Your task to perform on an android device: Open network settings Image 0: 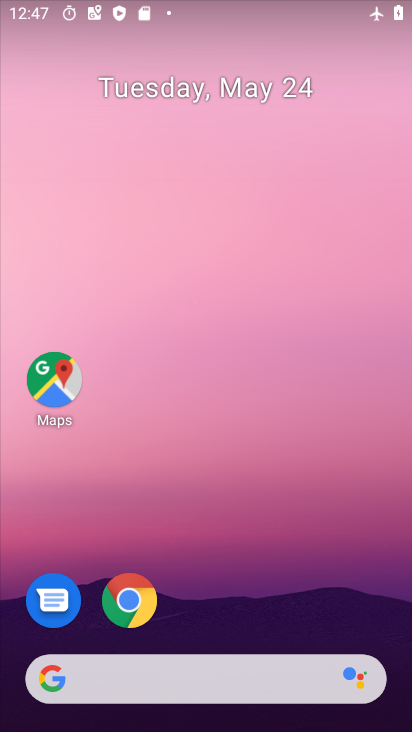
Step 0: drag from (278, 563) to (293, 203)
Your task to perform on an android device: Open network settings Image 1: 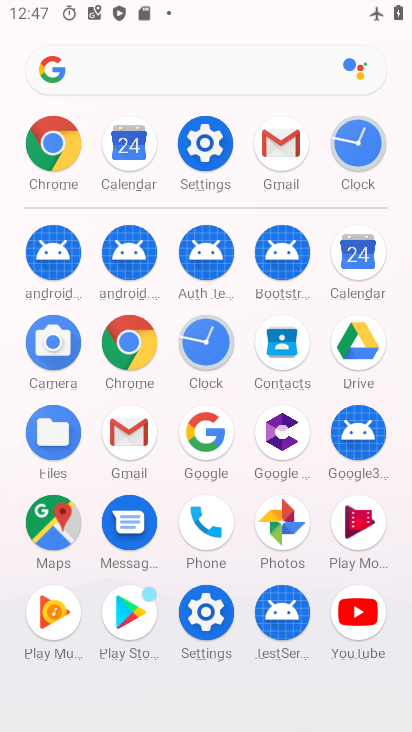
Step 1: click (214, 150)
Your task to perform on an android device: Open network settings Image 2: 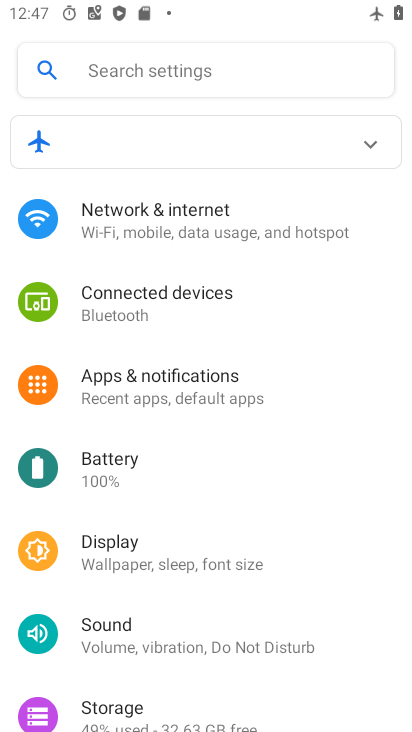
Step 2: click (189, 225)
Your task to perform on an android device: Open network settings Image 3: 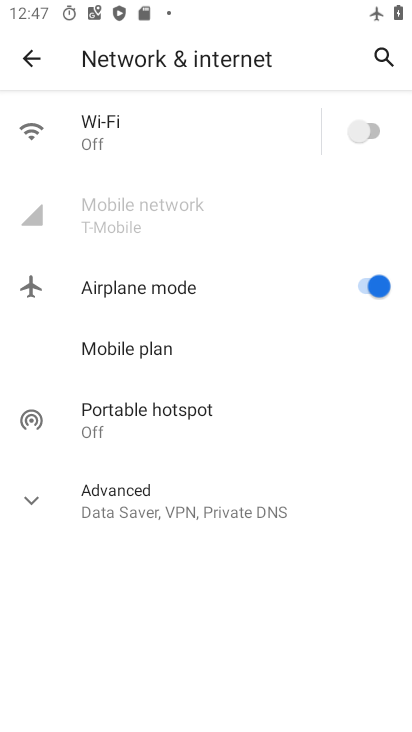
Step 3: task complete